Your task to perform on an android device: turn off notifications settings in the gmail app Image 0: 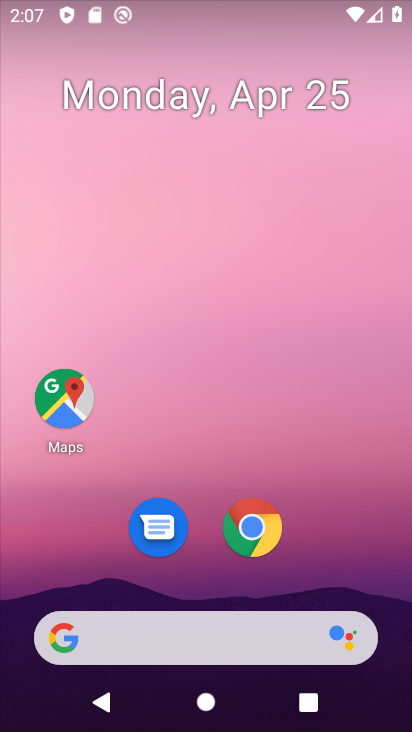
Step 0: drag from (336, 563) to (278, 31)
Your task to perform on an android device: turn off notifications settings in the gmail app Image 1: 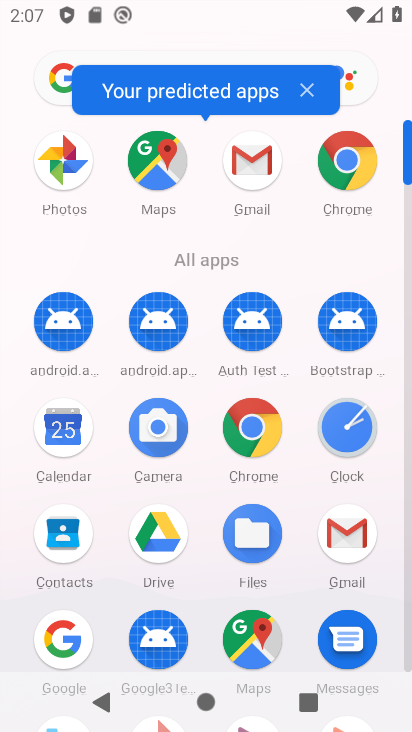
Step 1: click (255, 166)
Your task to perform on an android device: turn off notifications settings in the gmail app Image 2: 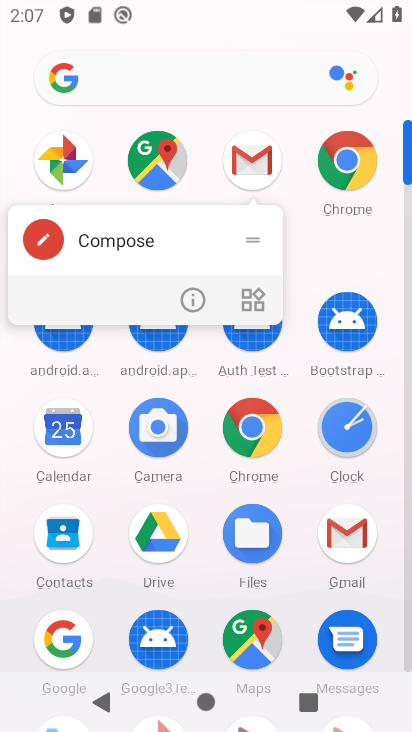
Step 2: click (253, 169)
Your task to perform on an android device: turn off notifications settings in the gmail app Image 3: 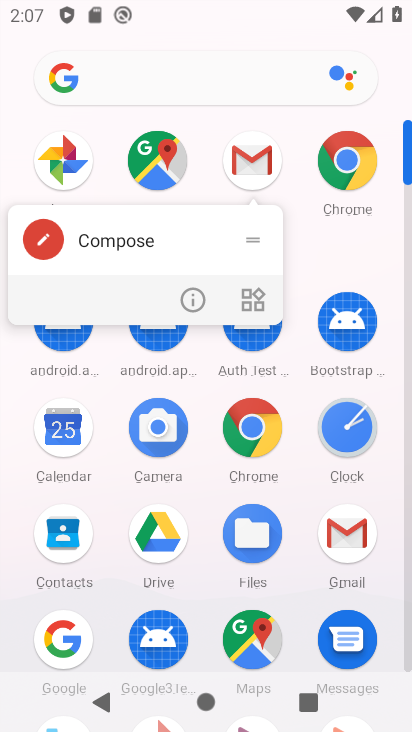
Step 3: click (196, 296)
Your task to perform on an android device: turn off notifications settings in the gmail app Image 4: 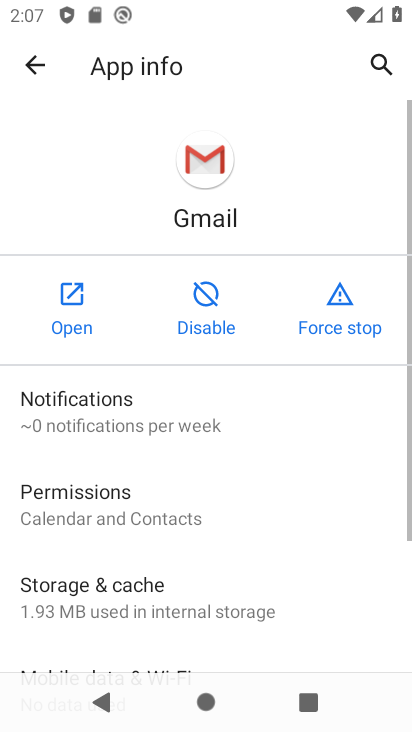
Step 4: click (116, 438)
Your task to perform on an android device: turn off notifications settings in the gmail app Image 5: 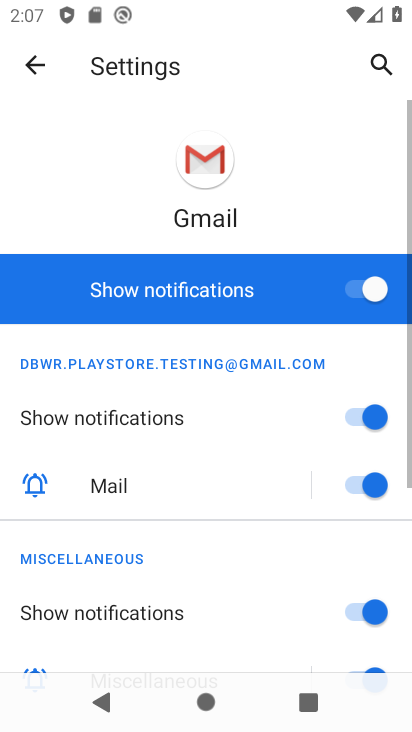
Step 5: click (380, 293)
Your task to perform on an android device: turn off notifications settings in the gmail app Image 6: 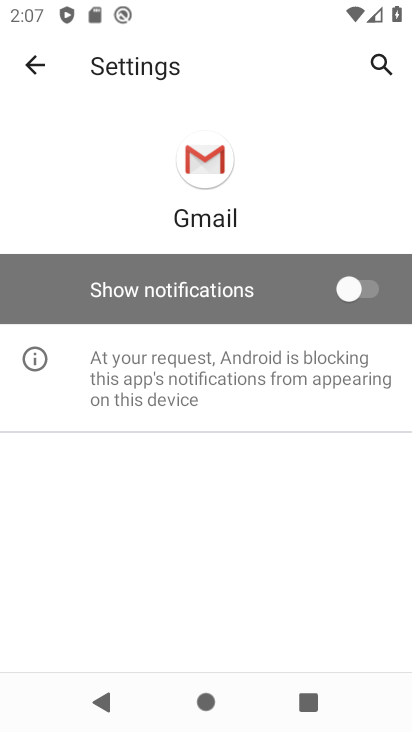
Step 6: task complete